Your task to perform on an android device: add a label to a message in the gmail app Image 0: 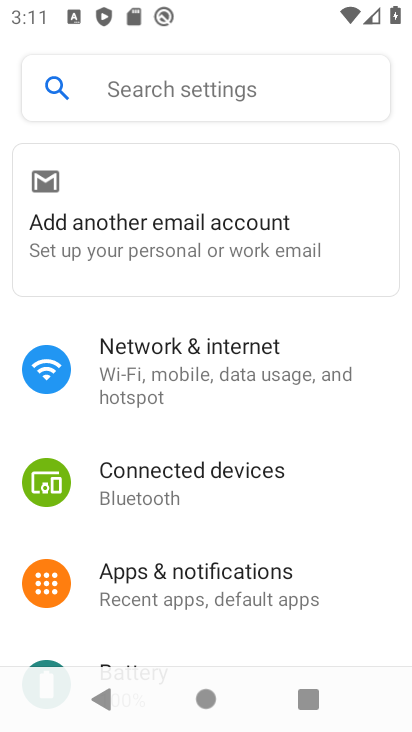
Step 0: press home button
Your task to perform on an android device: add a label to a message in the gmail app Image 1: 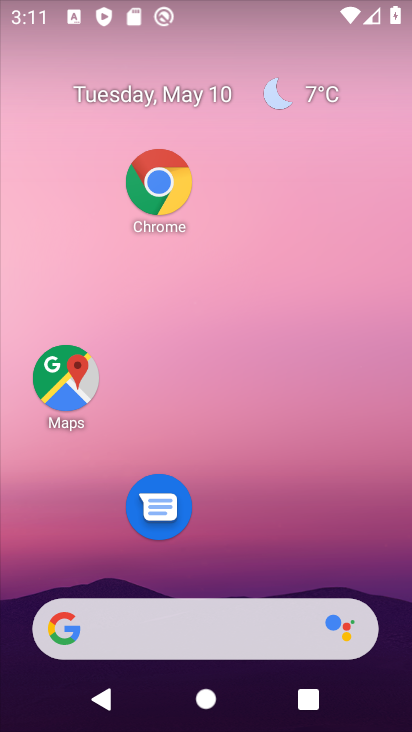
Step 1: click (194, 636)
Your task to perform on an android device: add a label to a message in the gmail app Image 2: 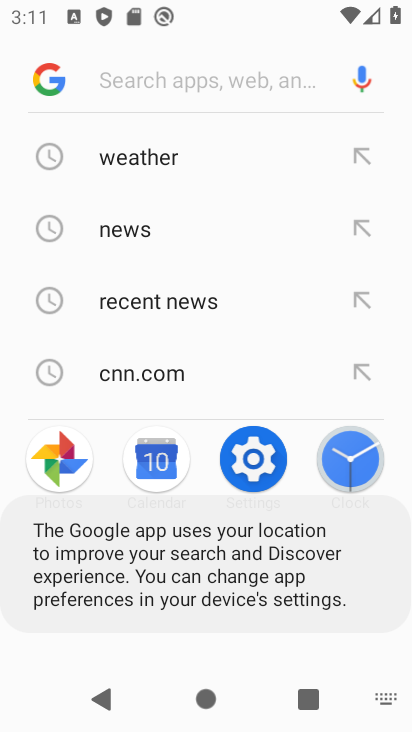
Step 2: click (167, 155)
Your task to perform on an android device: add a label to a message in the gmail app Image 3: 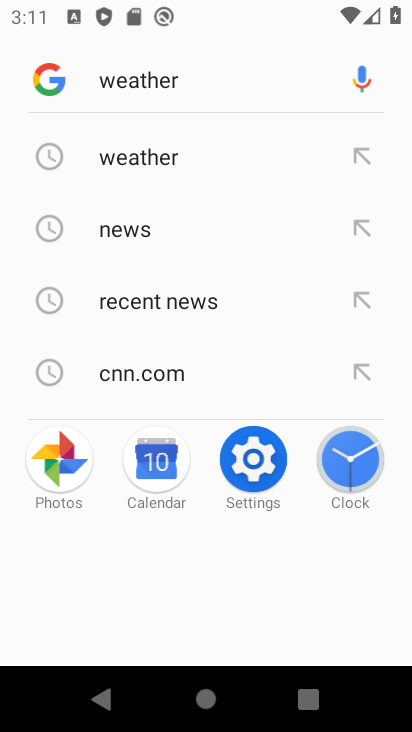
Step 3: task complete